Your task to perform on an android device: turn on wifi Image 0: 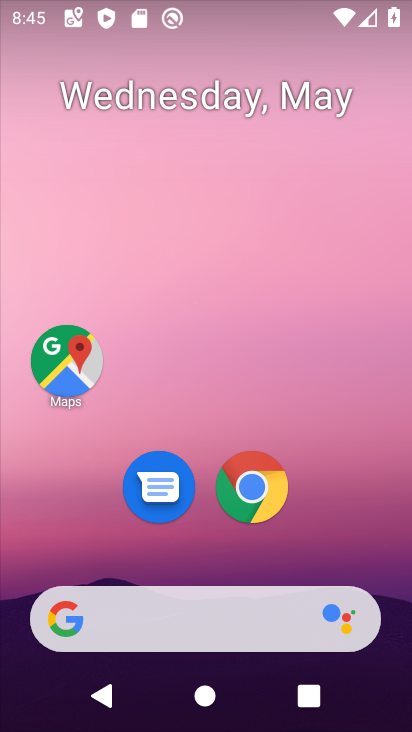
Step 0: drag from (316, 531) to (161, 6)
Your task to perform on an android device: turn on wifi Image 1: 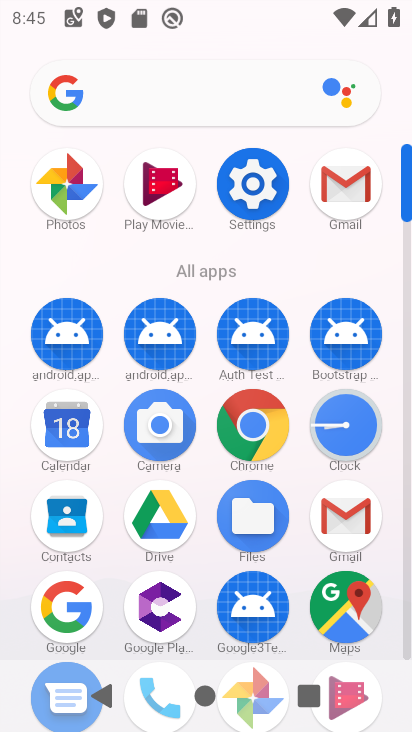
Step 1: click (252, 179)
Your task to perform on an android device: turn on wifi Image 2: 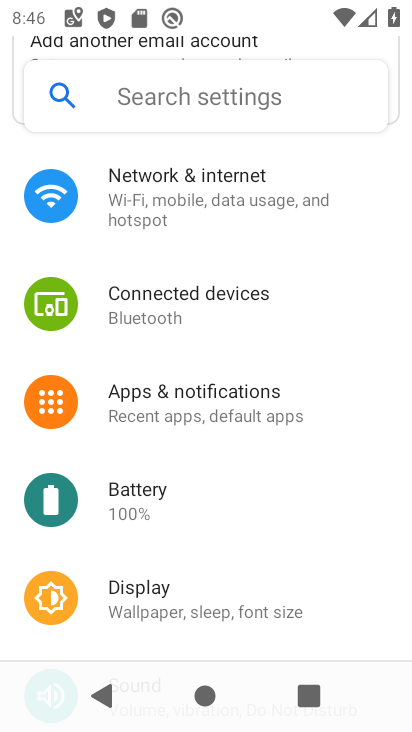
Step 2: click (165, 177)
Your task to perform on an android device: turn on wifi Image 3: 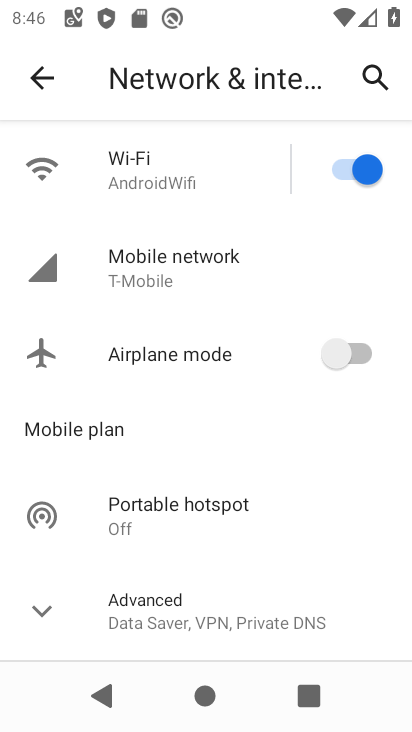
Step 3: task complete